Your task to perform on an android device: uninstall "ColorNote Notepad Notes" Image 0: 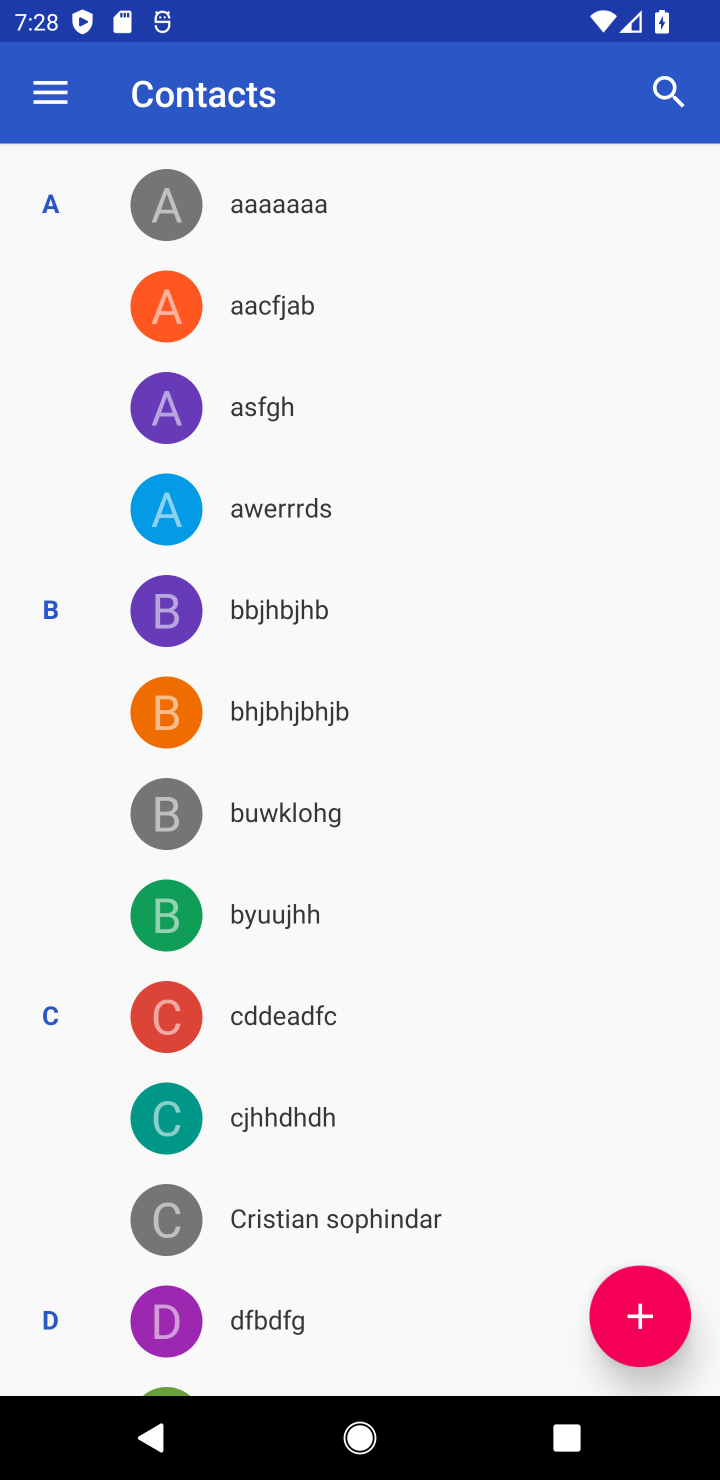
Step 0: press home button
Your task to perform on an android device: uninstall "ColorNote Notepad Notes" Image 1: 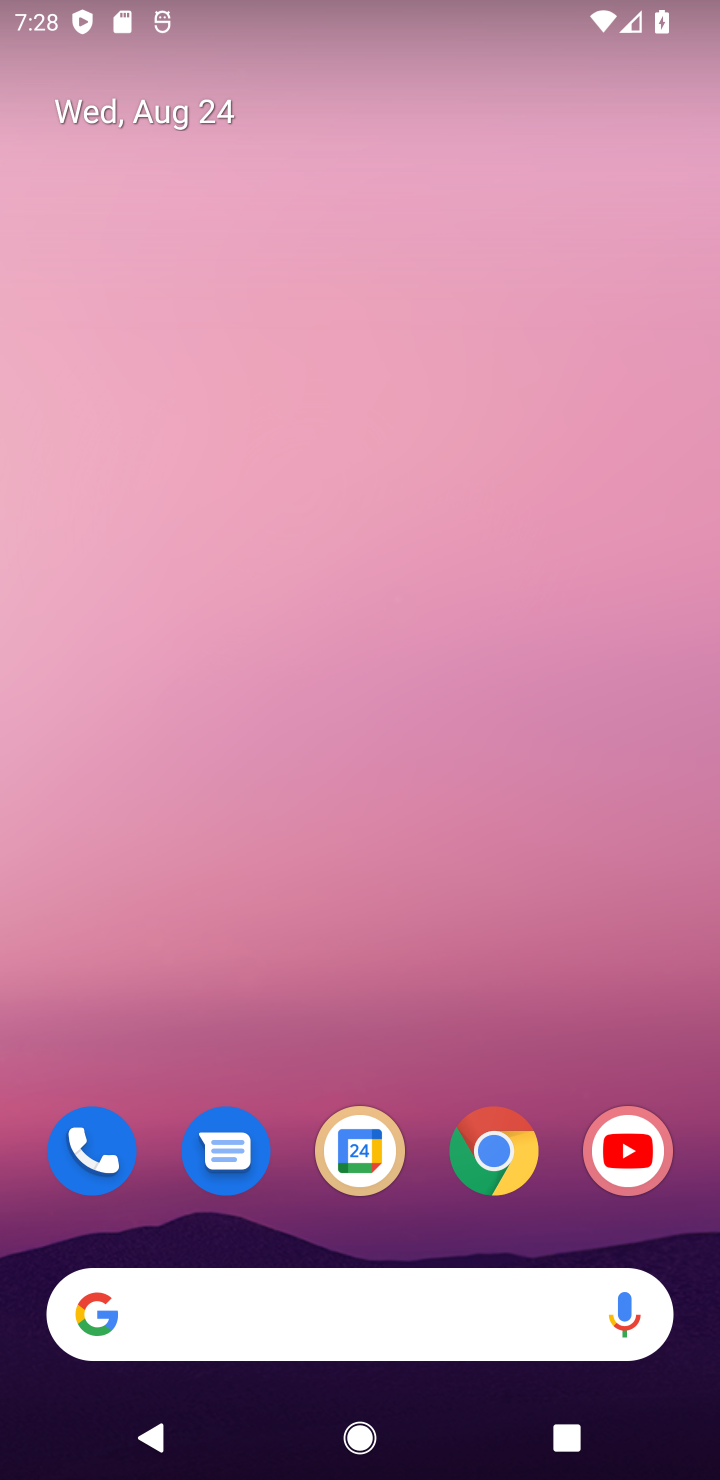
Step 1: drag from (417, 1223) to (387, 267)
Your task to perform on an android device: uninstall "ColorNote Notepad Notes" Image 2: 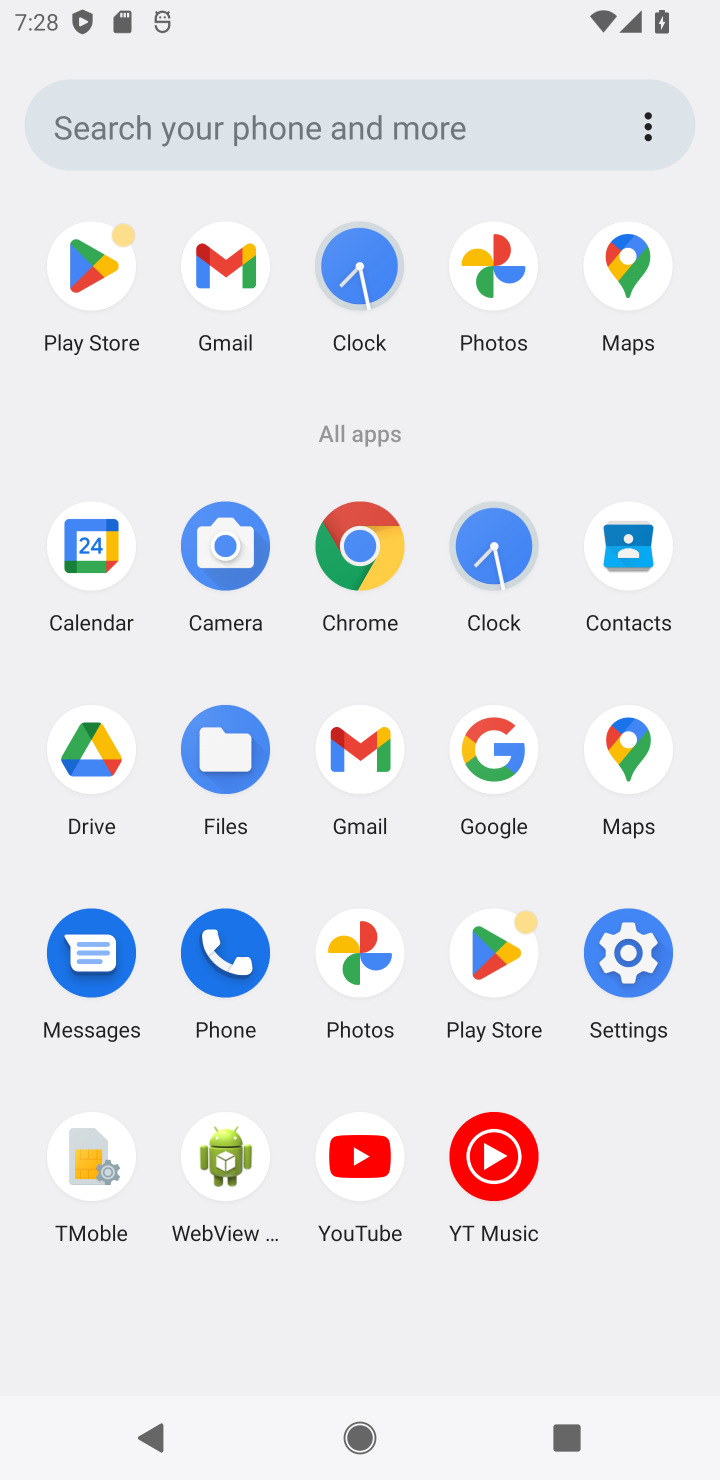
Step 2: click (498, 953)
Your task to perform on an android device: uninstall "ColorNote Notepad Notes" Image 3: 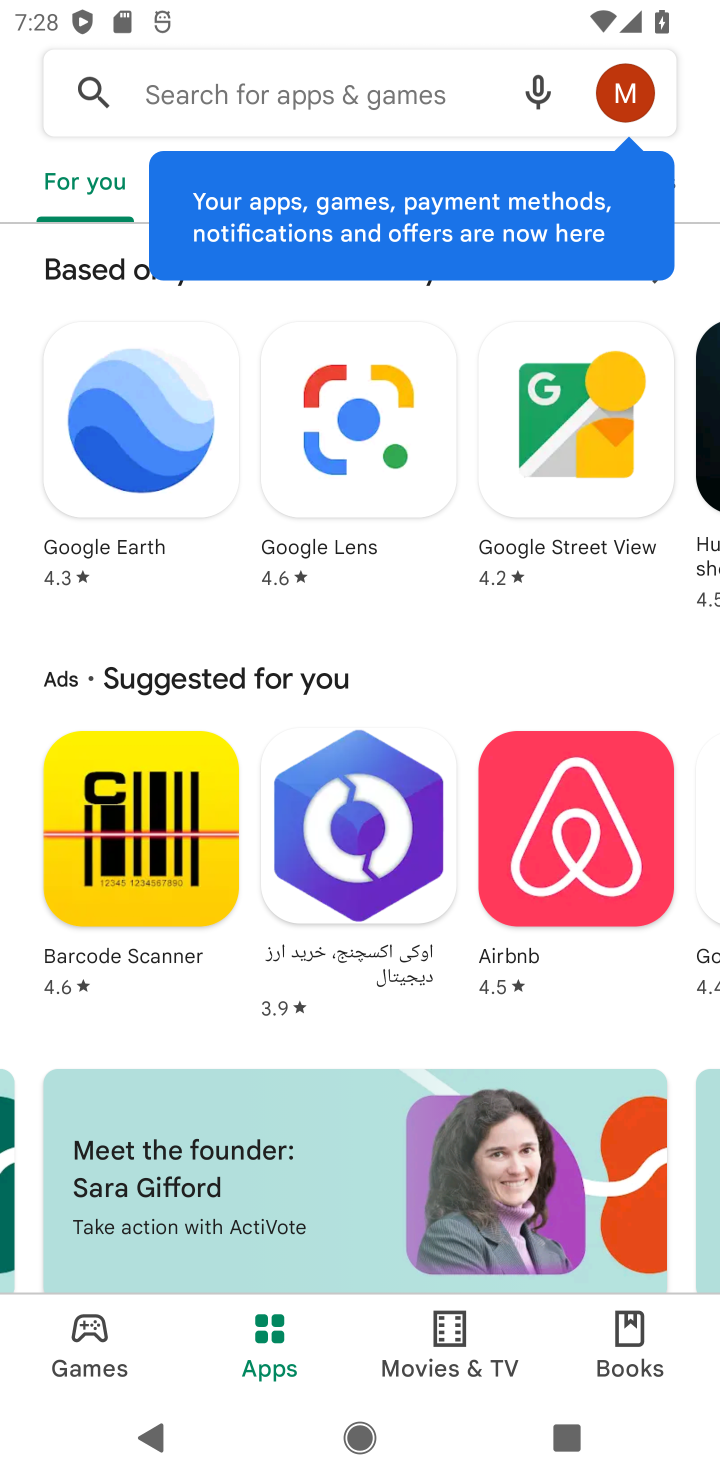
Step 3: click (165, 87)
Your task to perform on an android device: uninstall "ColorNote Notepad Notes" Image 4: 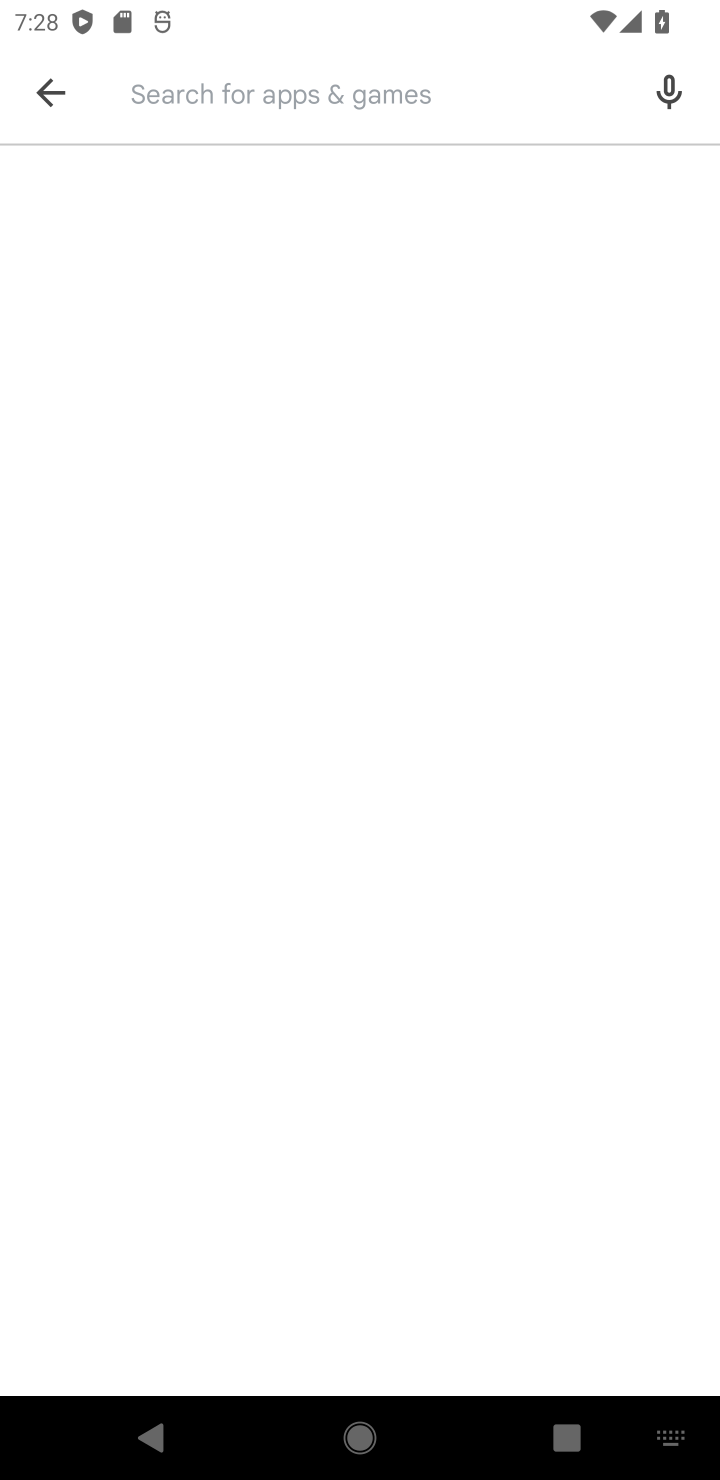
Step 4: type "ColorNote Notepad Notes"
Your task to perform on an android device: uninstall "ColorNote Notepad Notes" Image 5: 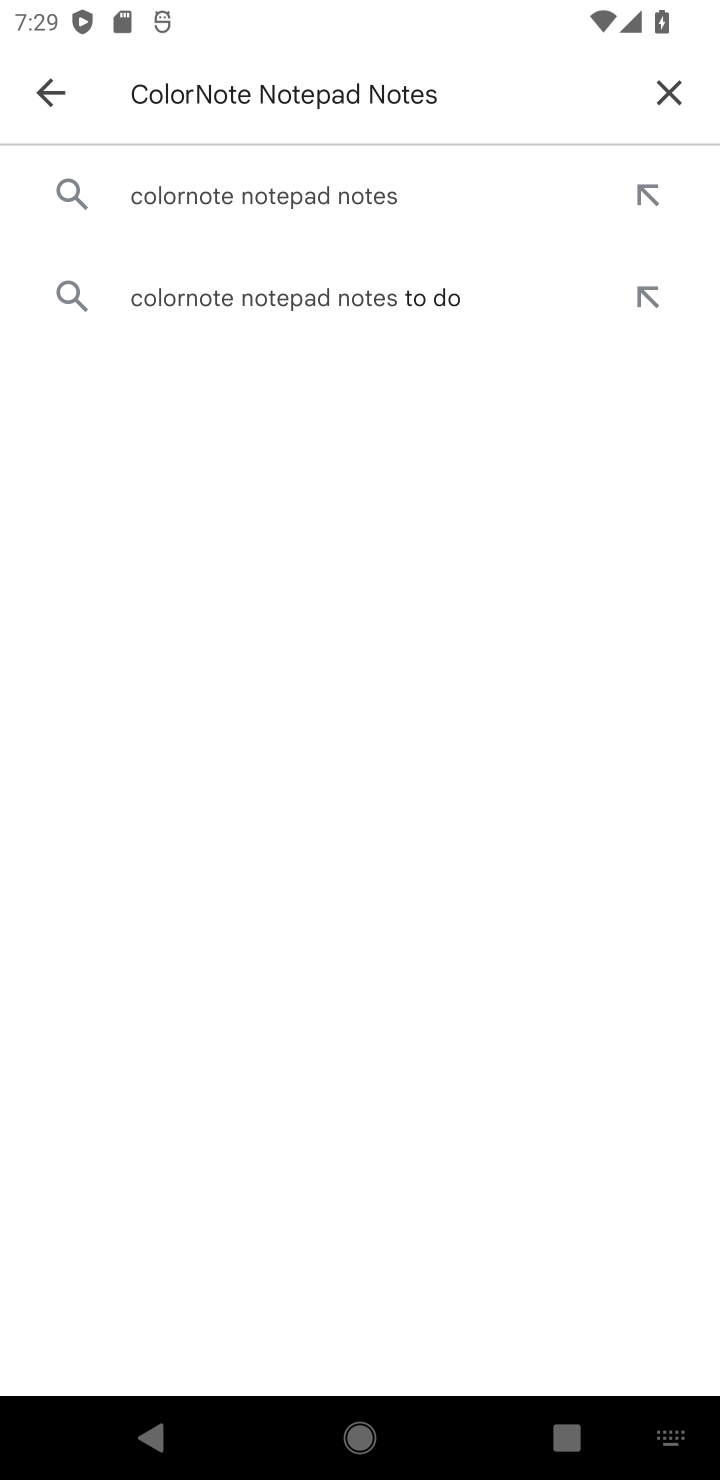
Step 5: click (270, 196)
Your task to perform on an android device: uninstall "ColorNote Notepad Notes" Image 6: 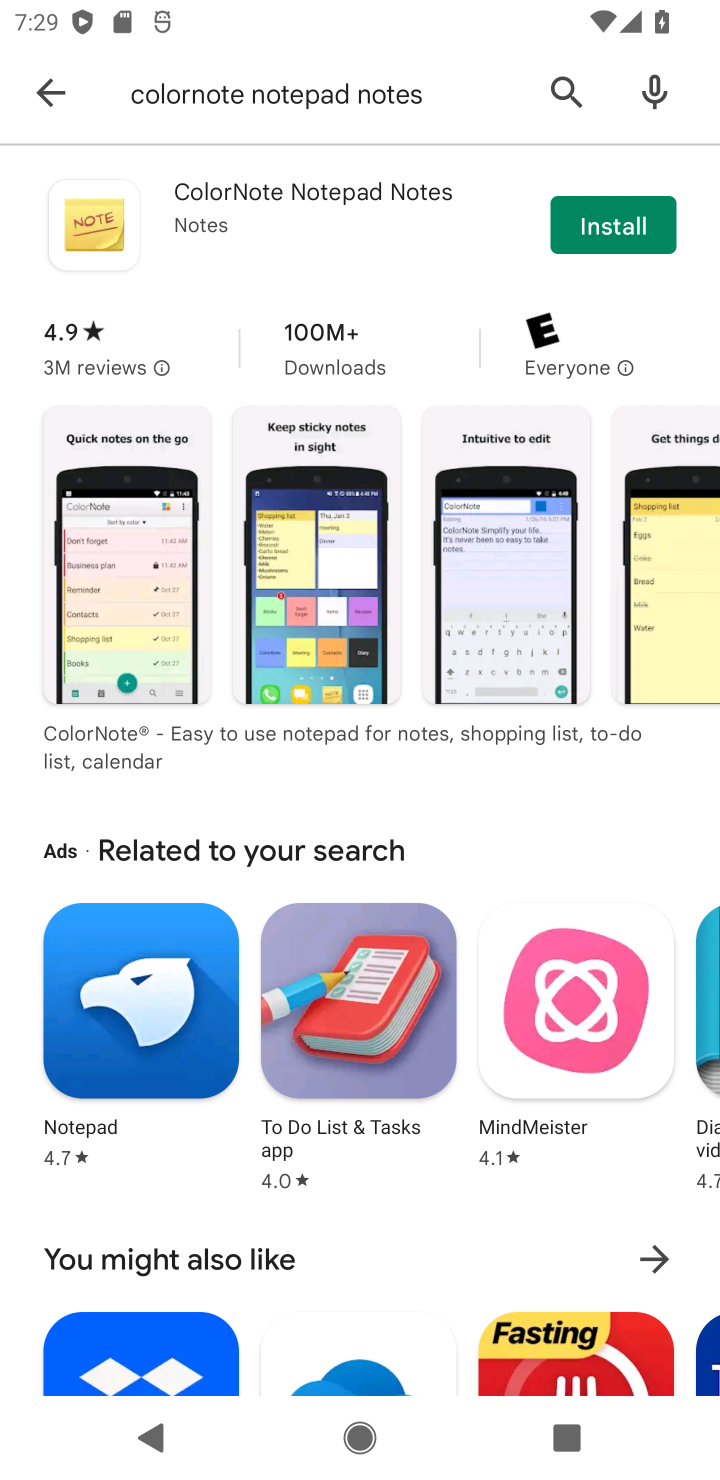
Step 6: task complete